Your task to perform on an android device: toggle translation in the chrome app Image 0: 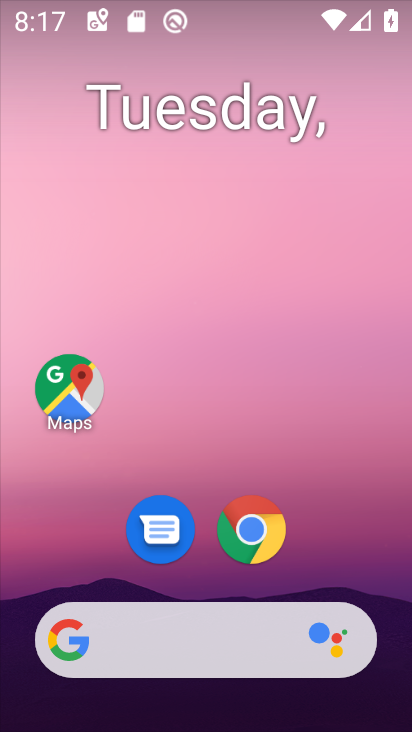
Step 0: click (246, 538)
Your task to perform on an android device: toggle translation in the chrome app Image 1: 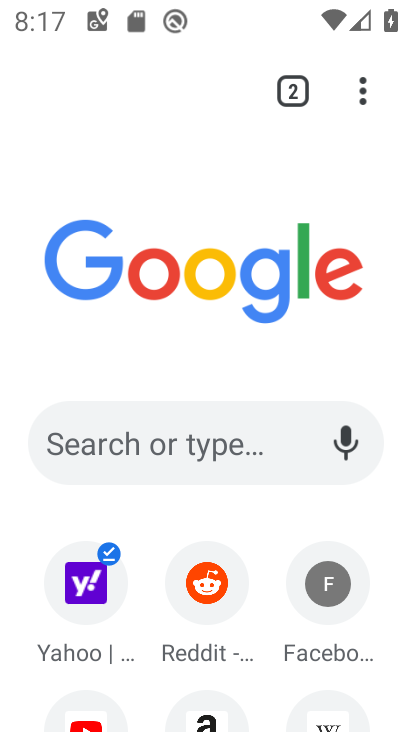
Step 1: drag from (364, 93) to (140, 557)
Your task to perform on an android device: toggle translation in the chrome app Image 2: 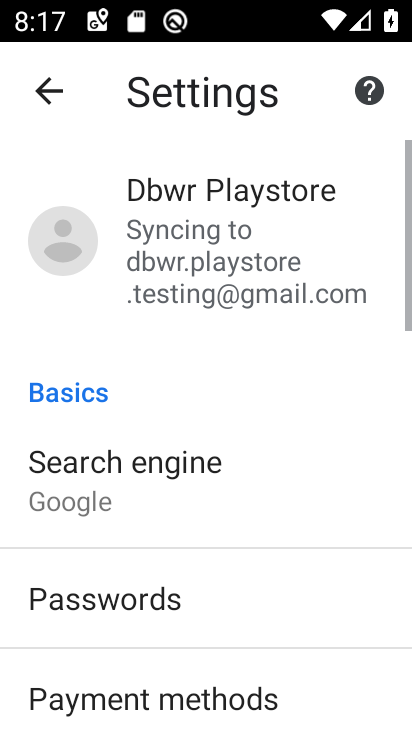
Step 2: drag from (160, 669) to (284, 106)
Your task to perform on an android device: toggle translation in the chrome app Image 3: 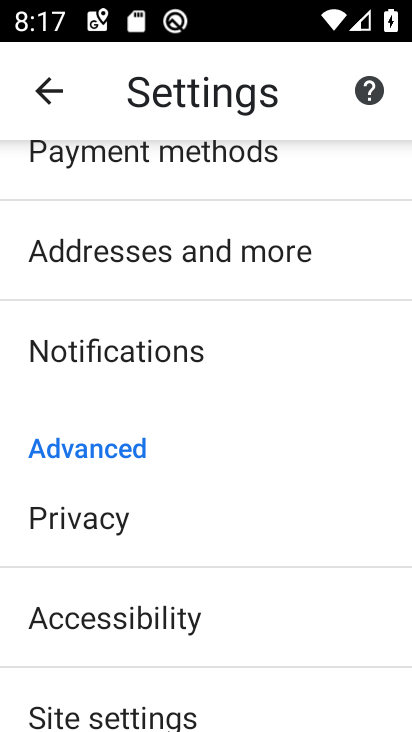
Step 3: drag from (221, 633) to (289, 191)
Your task to perform on an android device: toggle translation in the chrome app Image 4: 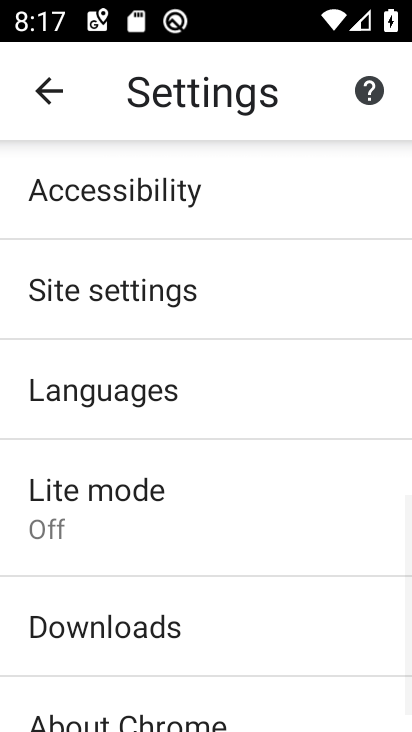
Step 4: click (113, 403)
Your task to perform on an android device: toggle translation in the chrome app Image 5: 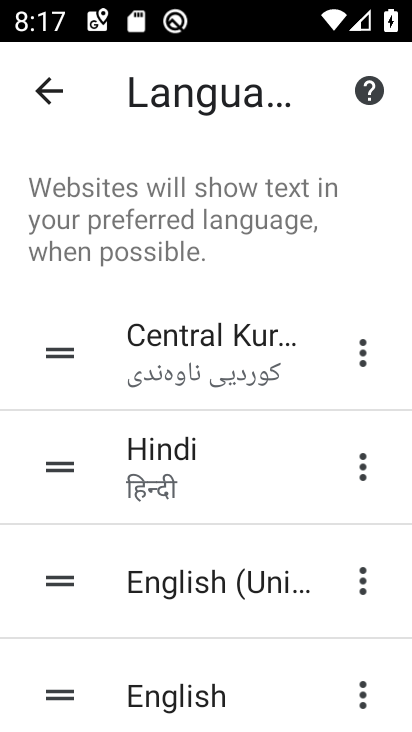
Step 5: drag from (241, 655) to (273, 120)
Your task to perform on an android device: toggle translation in the chrome app Image 6: 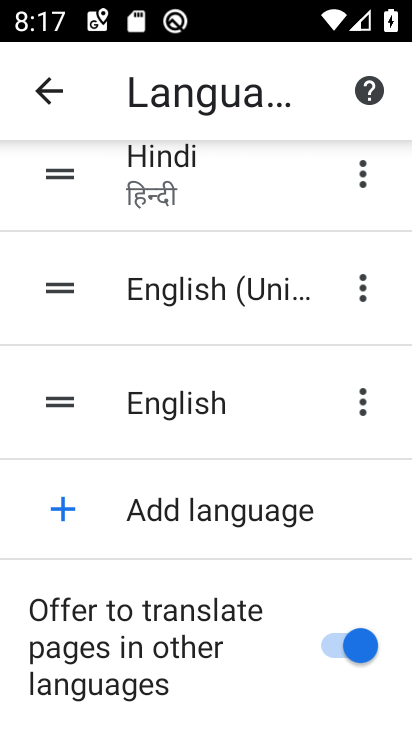
Step 6: click (340, 643)
Your task to perform on an android device: toggle translation in the chrome app Image 7: 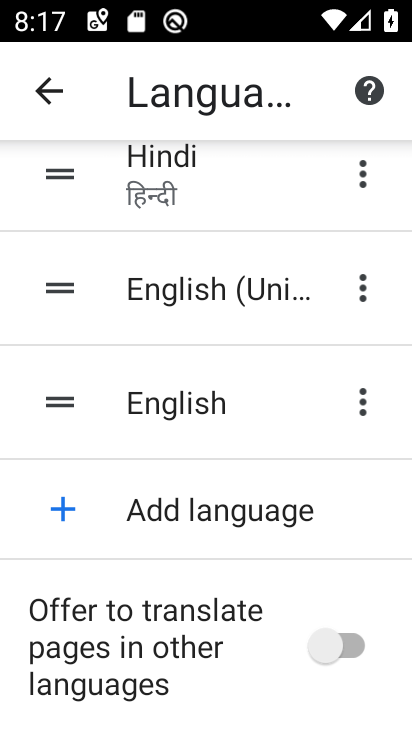
Step 7: task complete